Your task to perform on an android device: Go to Wikipedia Image 0: 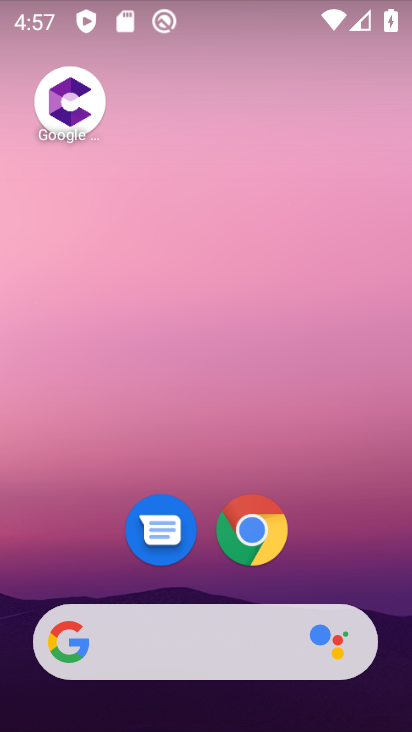
Step 0: click (255, 538)
Your task to perform on an android device: Go to Wikipedia Image 1: 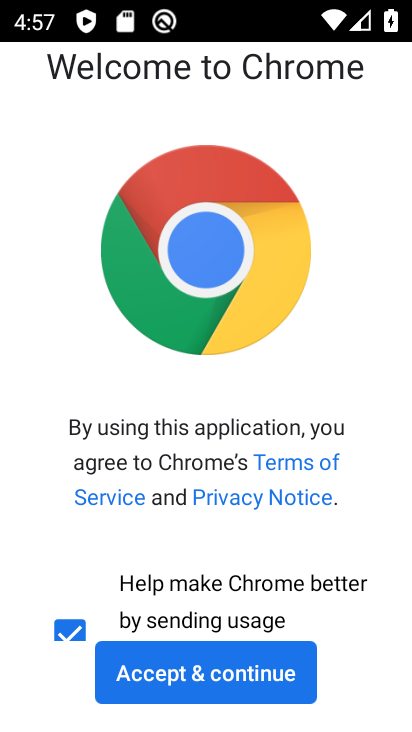
Step 1: click (234, 669)
Your task to perform on an android device: Go to Wikipedia Image 2: 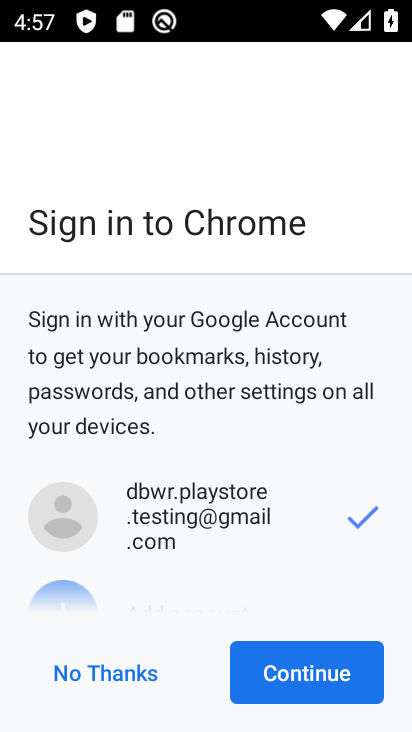
Step 2: click (309, 656)
Your task to perform on an android device: Go to Wikipedia Image 3: 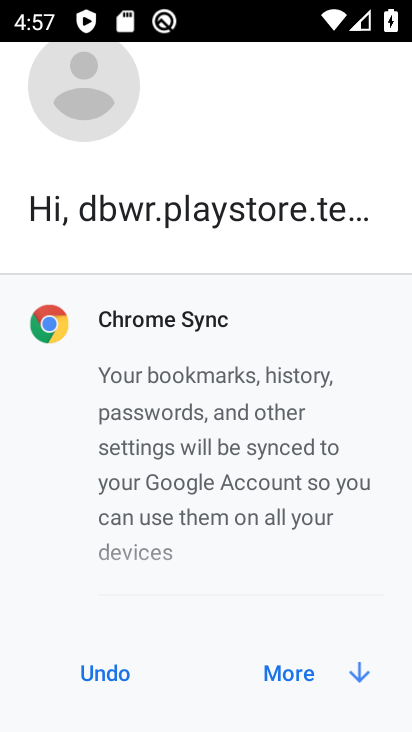
Step 3: click (317, 670)
Your task to perform on an android device: Go to Wikipedia Image 4: 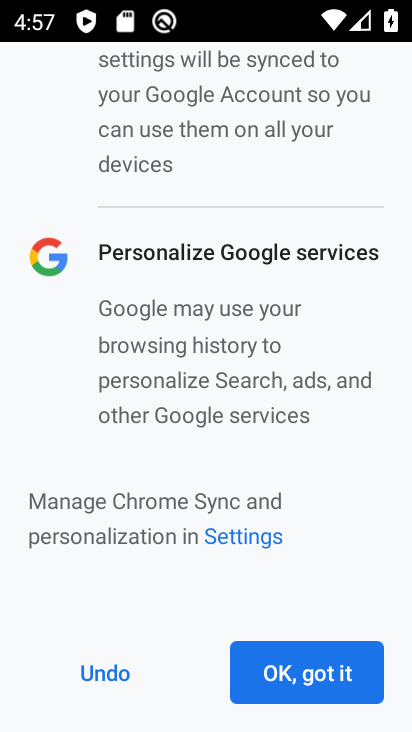
Step 4: click (312, 665)
Your task to perform on an android device: Go to Wikipedia Image 5: 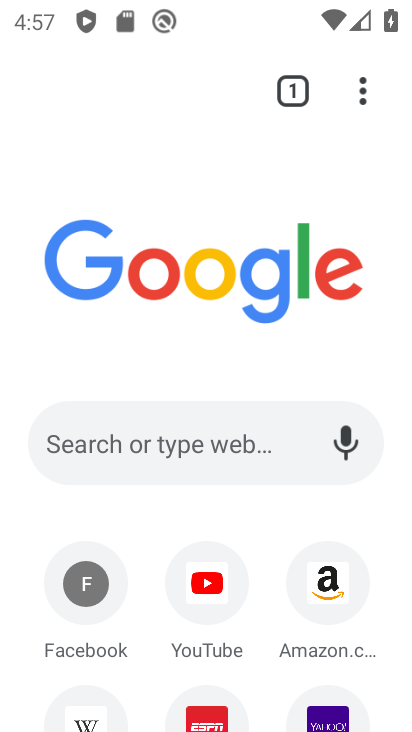
Step 5: drag from (270, 679) to (235, 409)
Your task to perform on an android device: Go to Wikipedia Image 6: 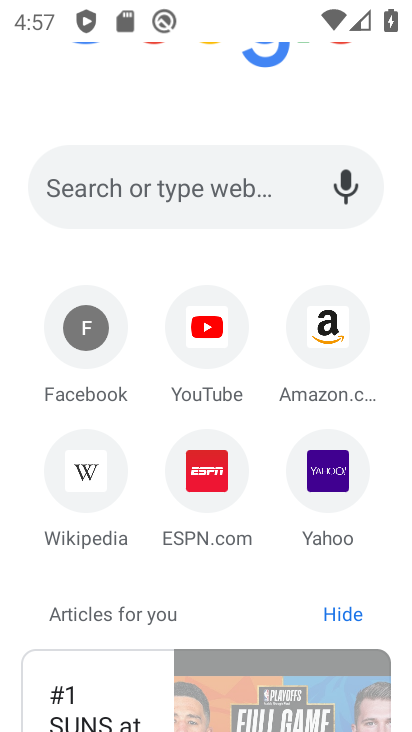
Step 6: click (72, 482)
Your task to perform on an android device: Go to Wikipedia Image 7: 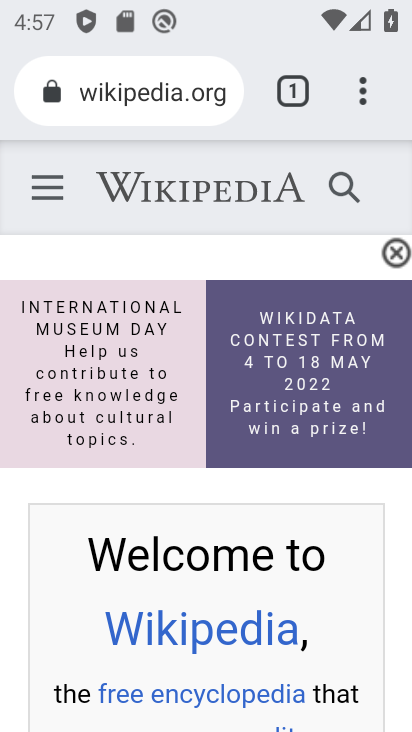
Step 7: task complete